Your task to perform on an android device: delete location history Image 0: 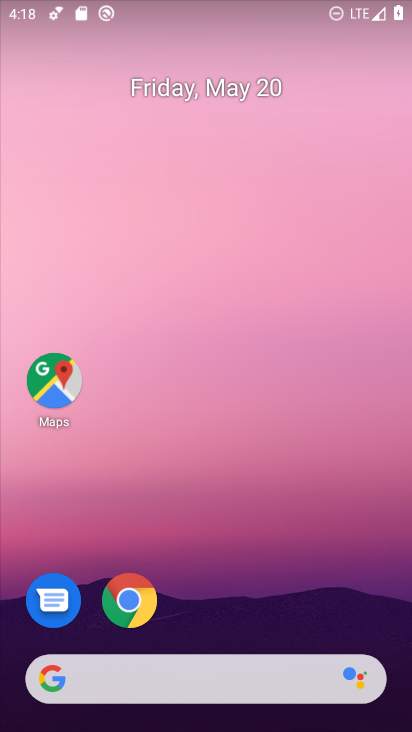
Step 0: drag from (218, 594) to (308, 2)
Your task to perform on an android device: delete location history Image 1: 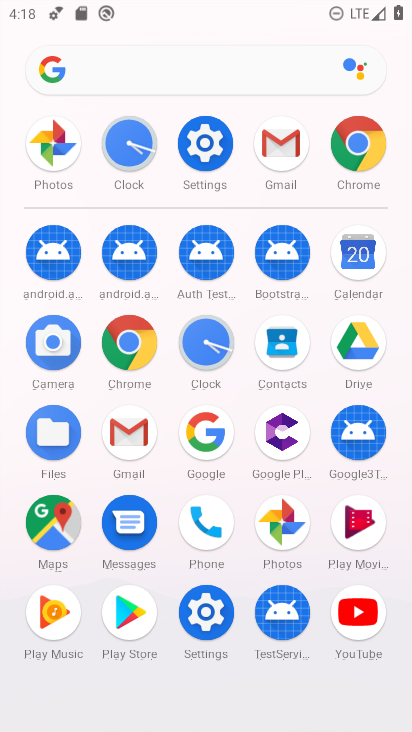
Step 1: click (45, 535)
Your task to perform on an android device: delete location history Image 2: 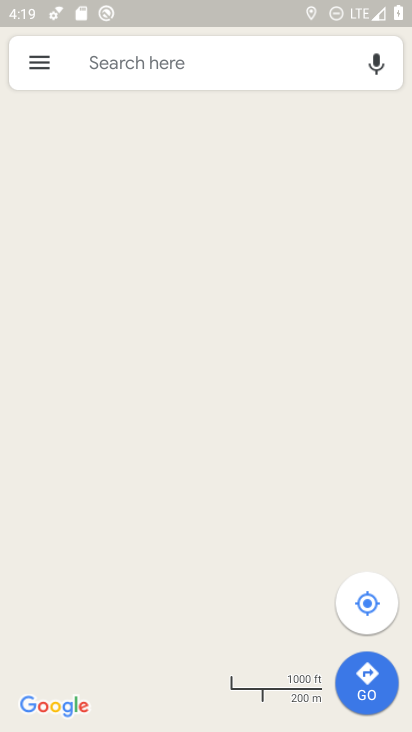
Step 2: click (38, 70)
Your task to perform on an android device: delete location history Image 3: 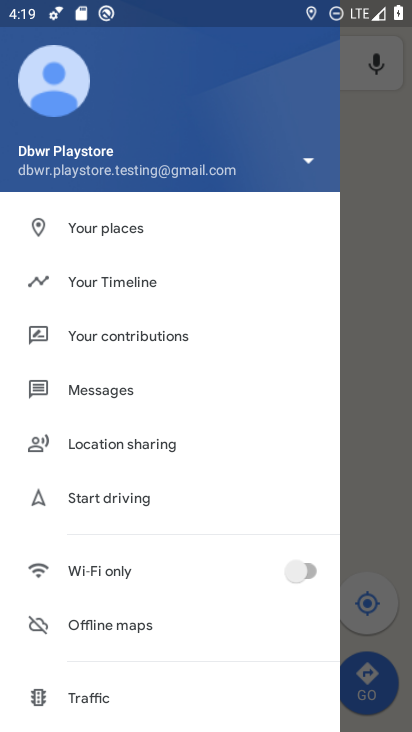
Step 3: click (153, 284)
Your task to perform on an android device: delete location history Image 4: 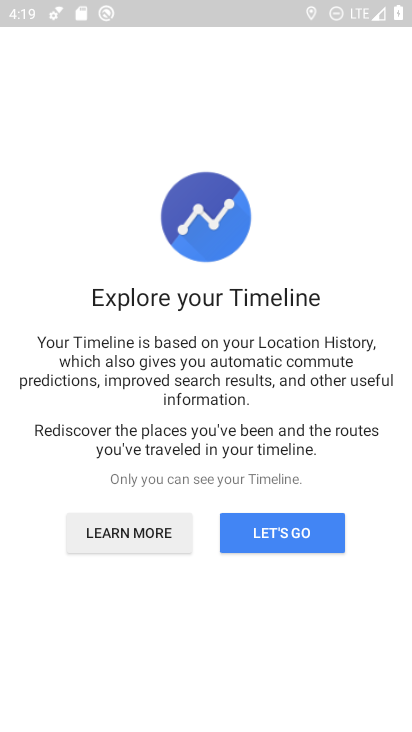
Step 4: click (324, 531)
Your task to perform on an android device: delete location history Image 5: 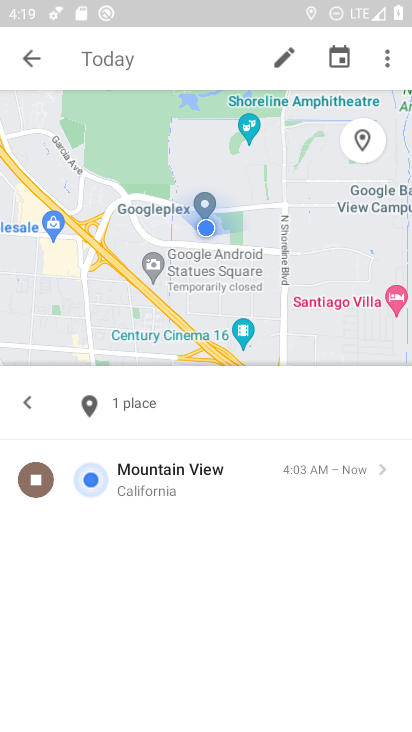
Step 5: click (383, 62)
Your task to perform on an android device: delete location history Image 6: 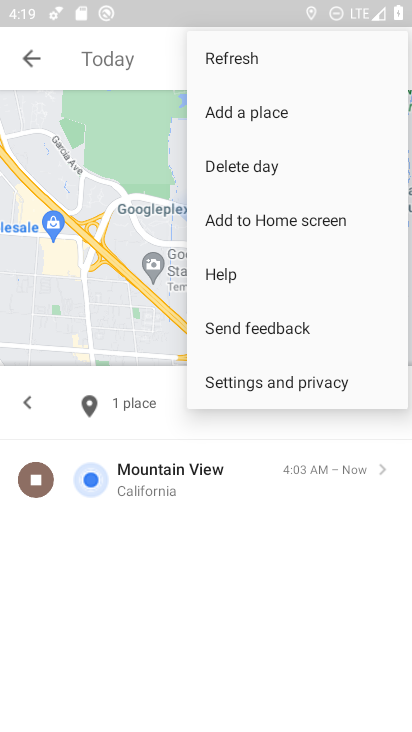
Step 6: click (233, 379)
Your task to perform on an android device: delete location history Image 7: 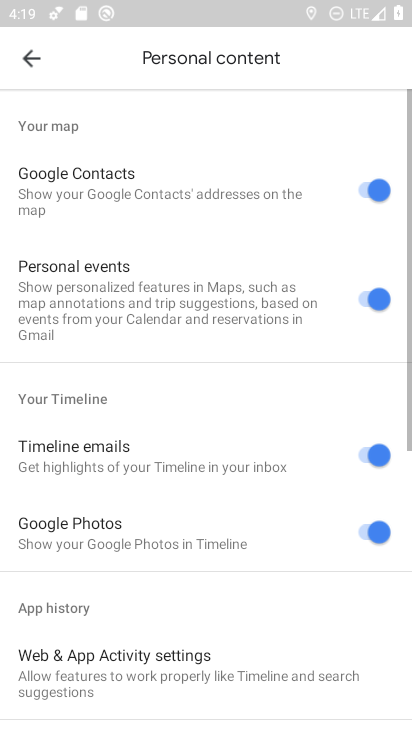
Step 7: drag from (186, 634) to (274, 46)
Your task to perform on an android device: delete location history Image 8: 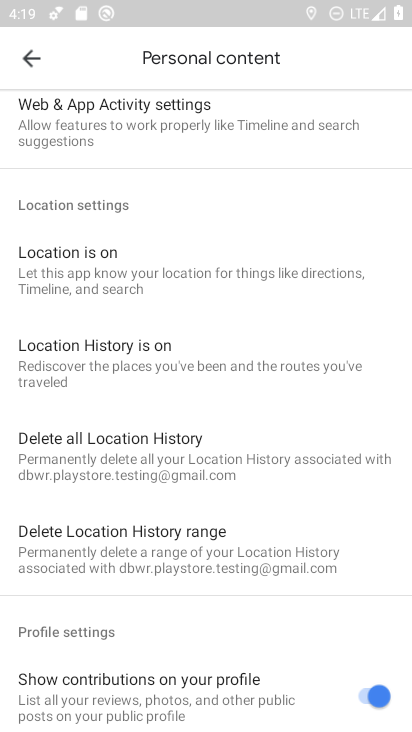
Step 8: click (123, 455)
Your task to perform on an android device: delete location history Image 9: 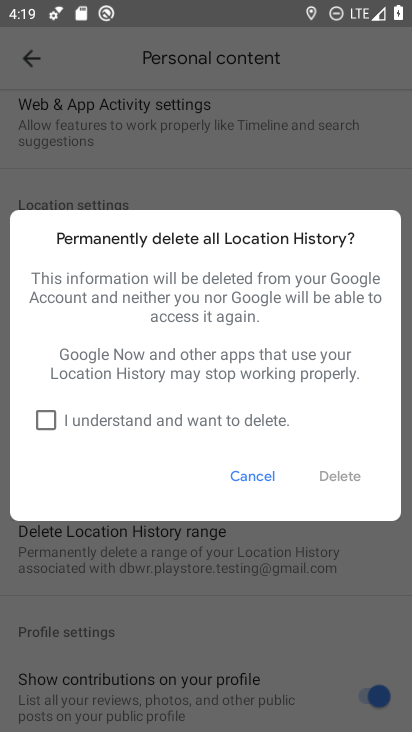
Step 9: click (68, 413)
Your task to perform on an android device: delete location history Image 10: 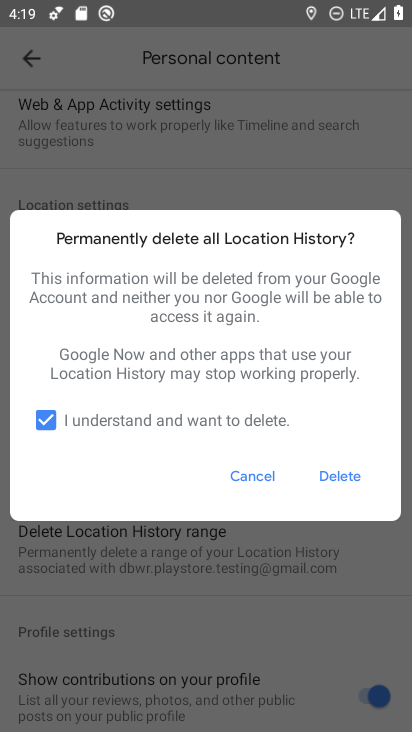
Step 10: click (360, 483)
Your task to perform on an android device: delete location history Image 11: 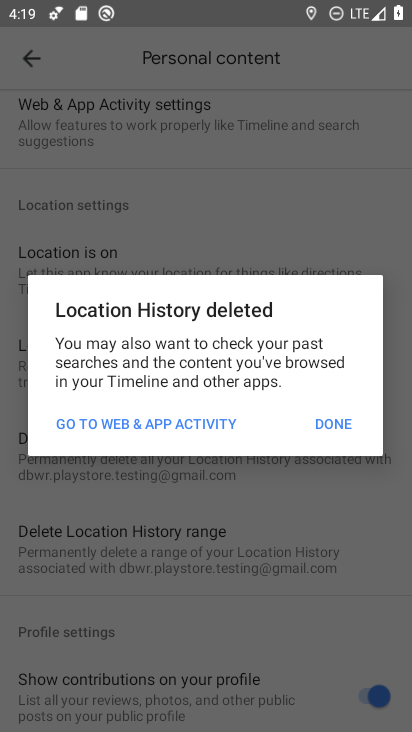
Step 11: click (345, 420)
Your task to perform on an android device: delete location history Image 12: 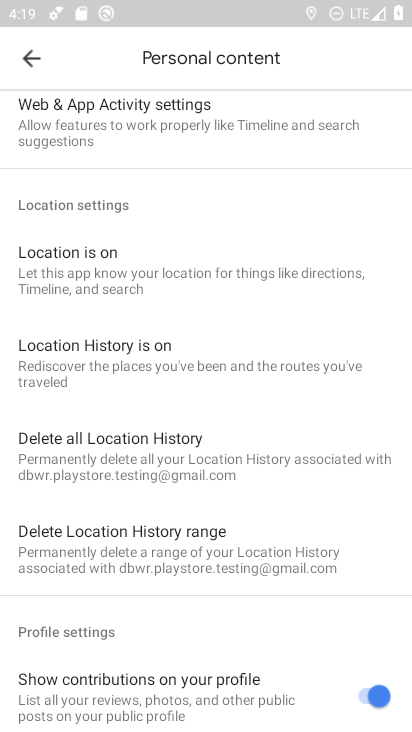
Step 12: task complete